Your task to perform on an android device: Search for "logitech g pro" on walmart, select the first entry, and add it to the cart. Image 0: 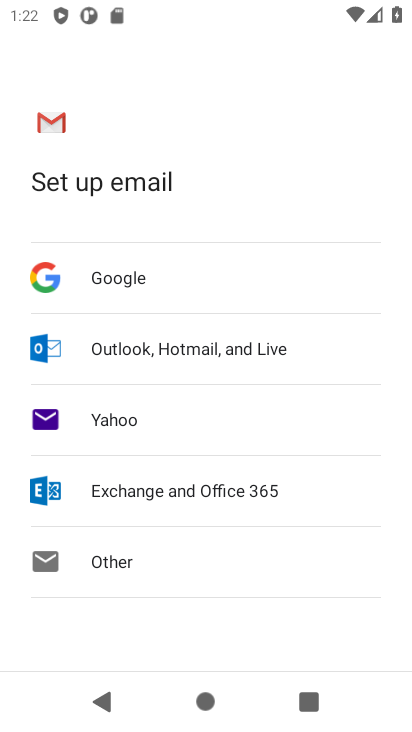
Step 0: press home button
Your task to perform on an android device: Search for "logitech g pro" on walmart, select the first entry, and add it to the cart. Image 1: 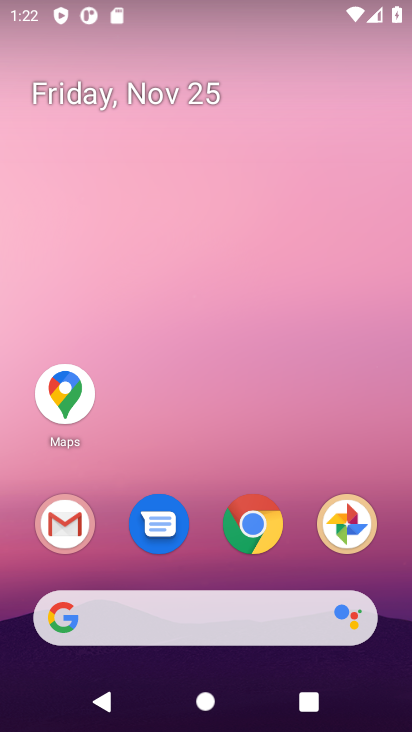
Step 1: click (246, 532)
Your task to perform on an android device: Search for "logitech g pro" on walmart, select the first entry, and add it to the cart. Image 2: 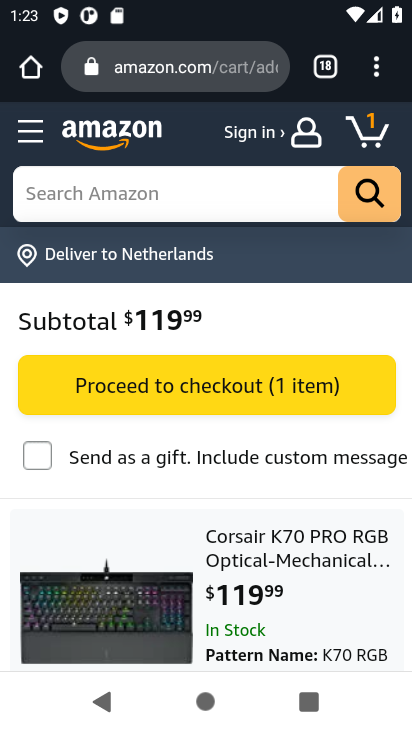
Step 2: click (165, 60)
Your task to perform on an android device: Search for "logitech g pro" on walmart, select the first entry, and add it to the cart. Image 3: 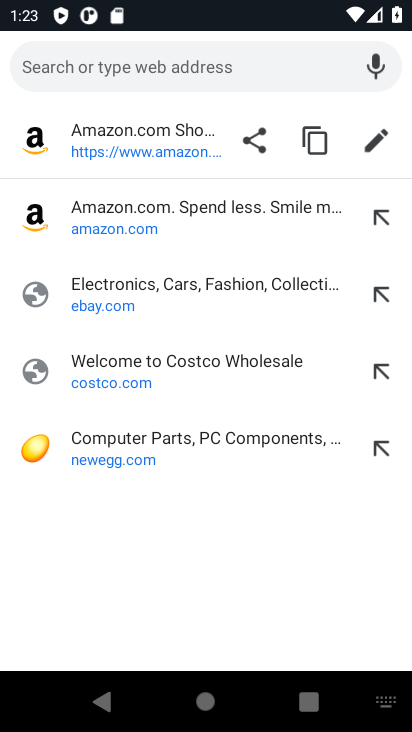
Step 3: type "walmart.com"
Your task to perform on an android device: Search for "logitech g pro" on walmart, select the first entry, and add it to the cart. Image 4: 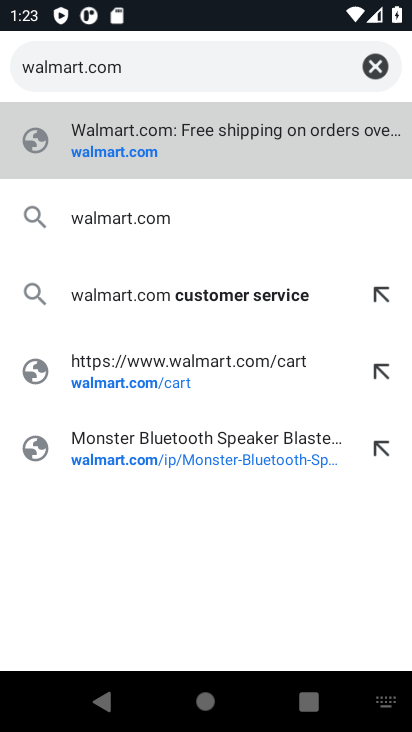
Step 4: click (116, 161)
Your task to perform on an android device: Search for "logitech g pro" on walmart, select the first entry, and add it to the cart. Image 5: 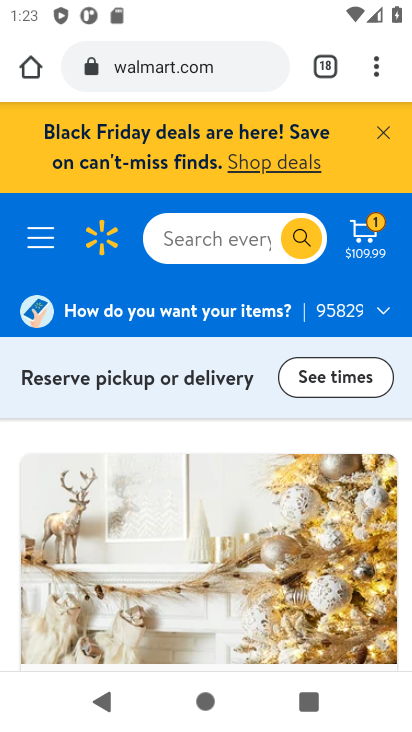
Step 5: click (190, 241)
Your task to perform on an android device: Search for "logitech g pro" on walmart, select the first entry, and add it to the cart. Image 6: 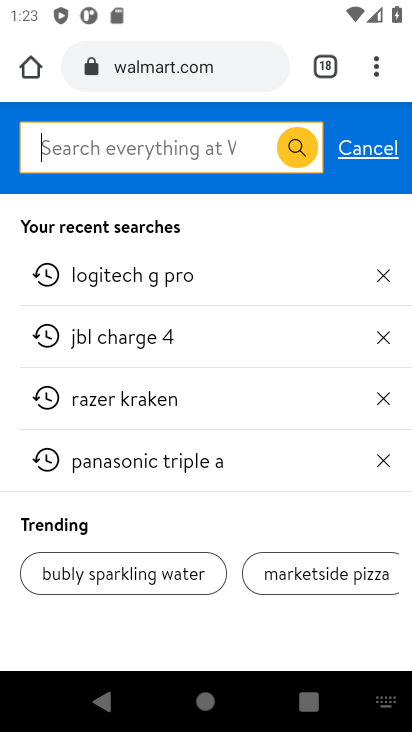
Step 6: type "logitech g pro"
Your task to perform on an android device: Search for "logitech g pro" on walmart, select the first entry, and add it to the cart. Image 7: 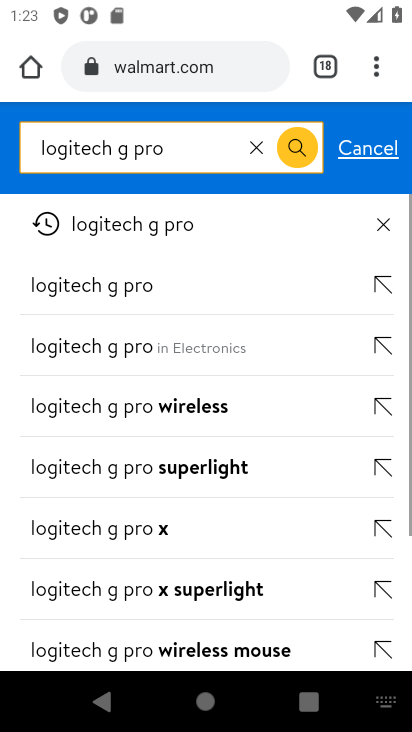
Step 7: click (149, 228)
Your task to perform on an android device: Search for "logitech g pro" on walmart, select the first entry, and add it to the cart. Image 8: 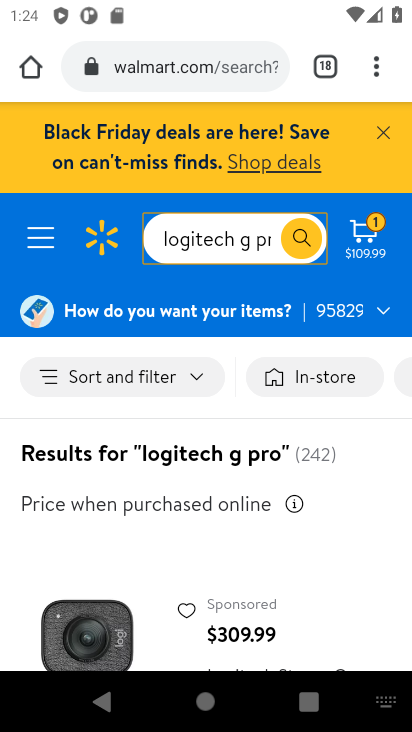
Step 8: task complete